Your task to perform on an android device: Open maps Image 0: 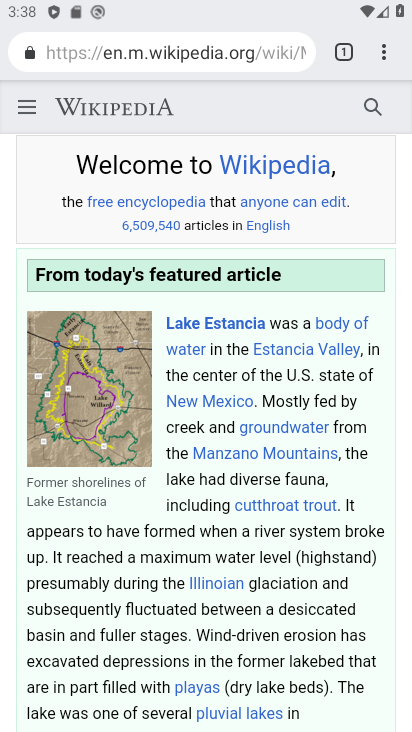
Step 0: press home button
Your task to perform on an android device: Open maps Image 1: 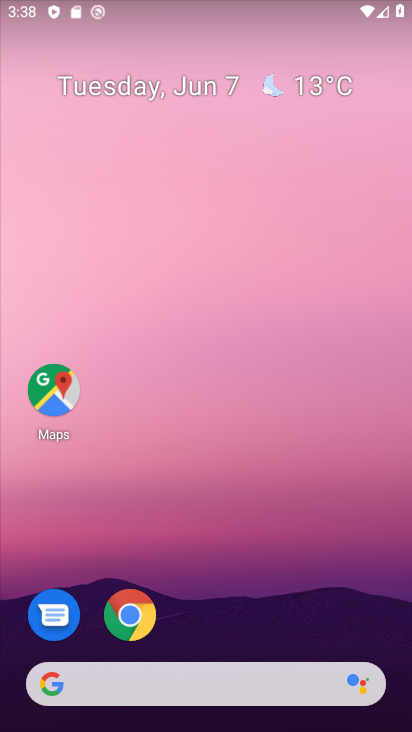
Step 1: click (61, 372)
Your task to perform on an android device: Open maps Image 2: 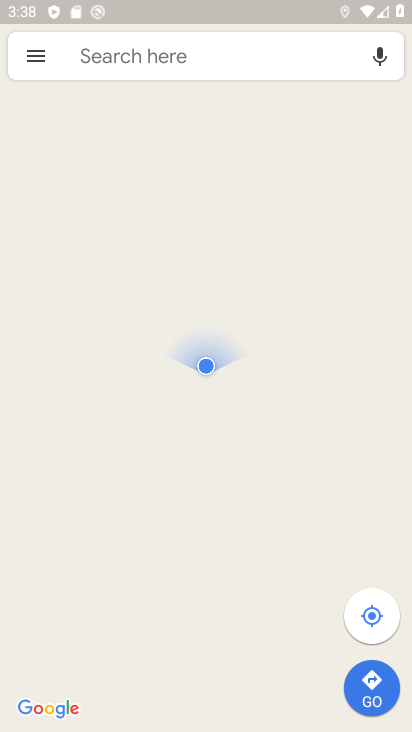
Step 2: task complete